Your task to perform on an android device: Go to network settings Image 0: 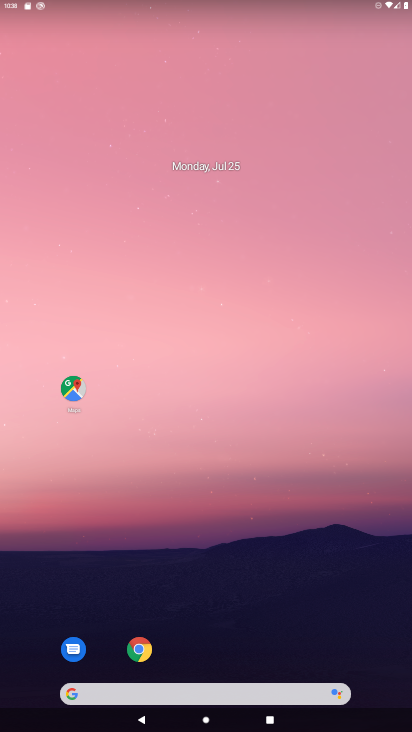
Step 0: drag from (365, 671) to (335, 136)
Your task to perform on an android device: Go to network settings Image 1: 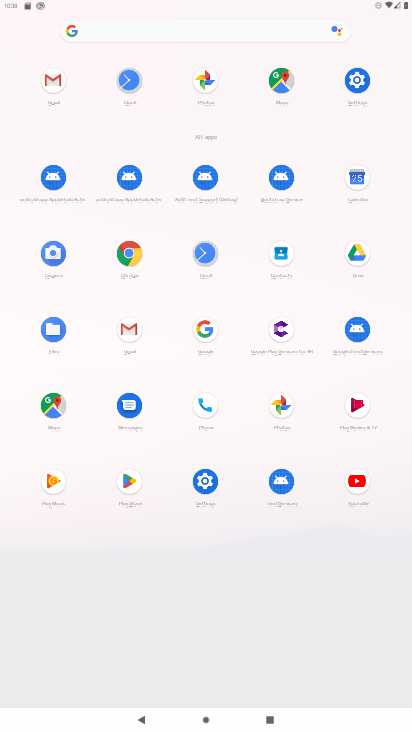
Step 1: click (206, 483)
Your task to perform on an android device: Go to network settings Image 2: 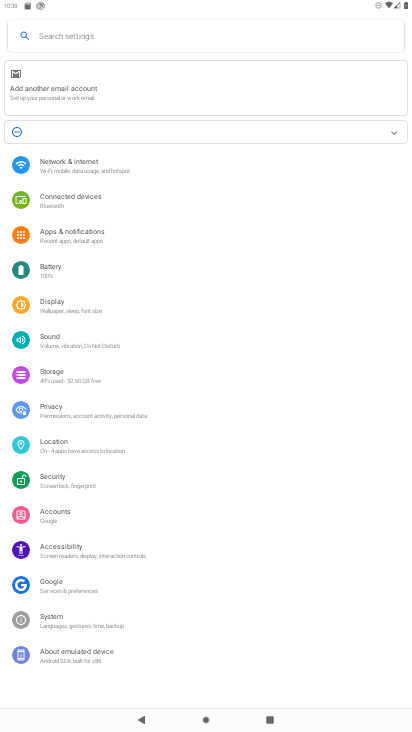
Step 2: click (70, 162)
Your task to perform on an android device: Go to network settings Image 3: 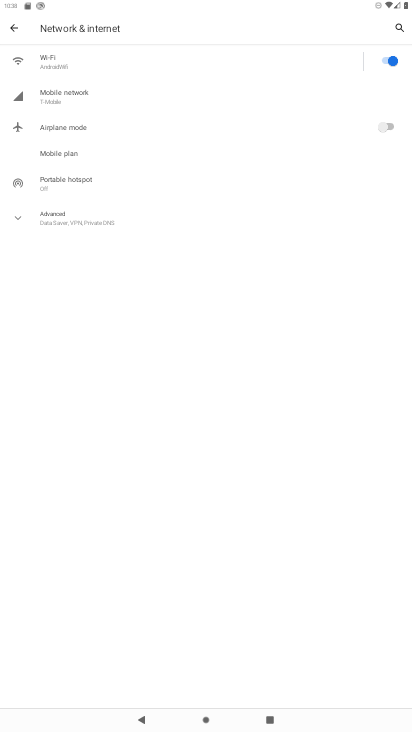
Step 3: click (55, 90)
Your task to perform on an android device: Go to network settings Image 4: 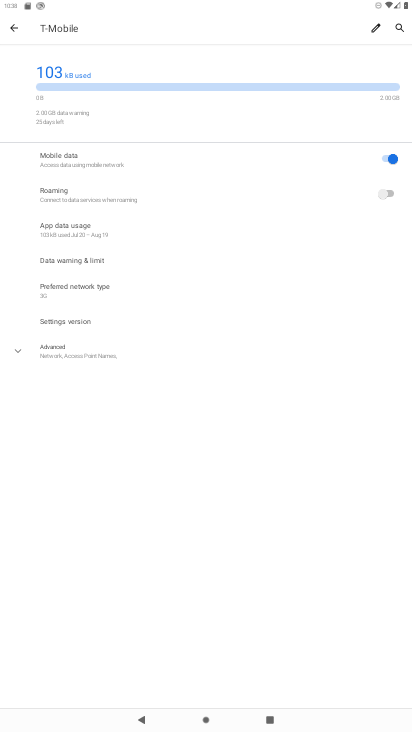
Step 4: click (15, 349)
Your task to perform on an android device: Go to network settings Image 5: 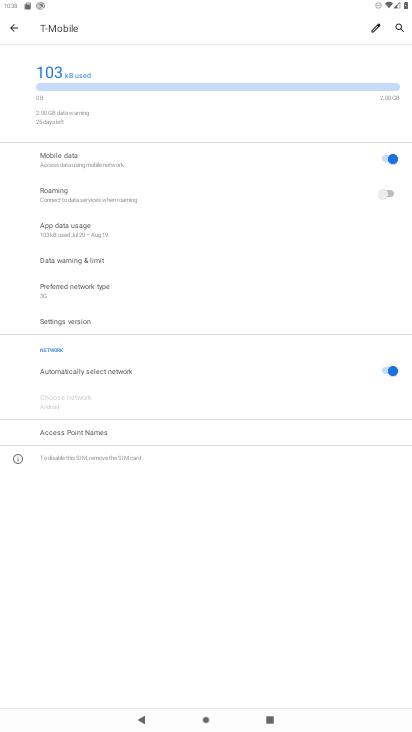
Step 5: task complete